Your task to perform on an android device: Search for Mexican restaurants on Maps Image 0: 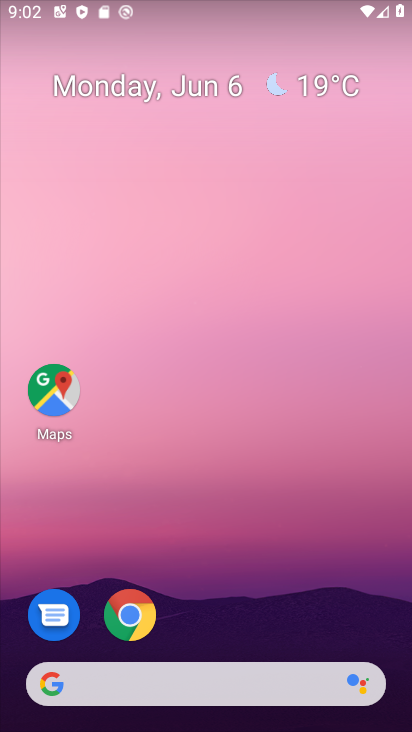
Step 0: click (48, 396)
Your task to perform on an android device: Search for Mexican restaurants on Maps Image 1: 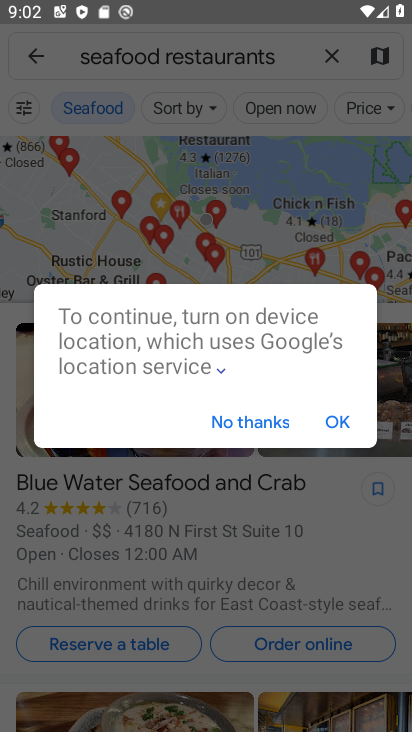
Step 1: click (337, 423)
Your task to perform on an android device: Search for Mexican restaurants on Maps Image 2: 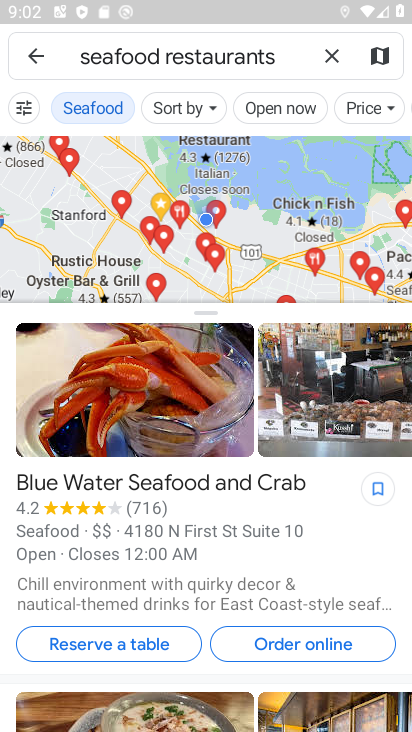
Step 2: click (323, 69)
Your task to perform on an android device: Search for Mexican restaurants on Maps Image 3: 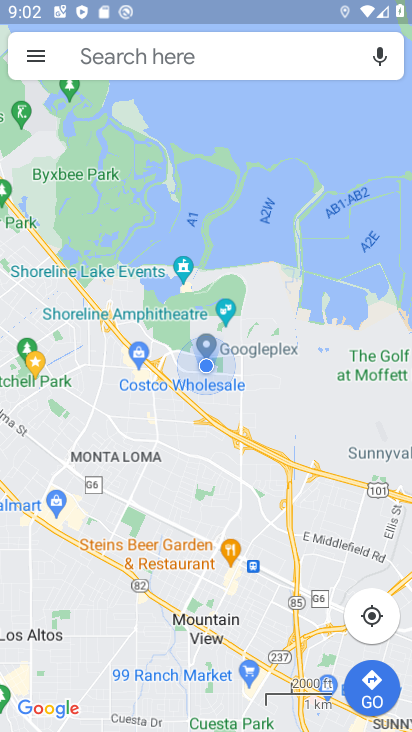
Step 3: click (248, 56)
Your task to perform on an android device: Search for Mexican restaurants on Maps Image 4: 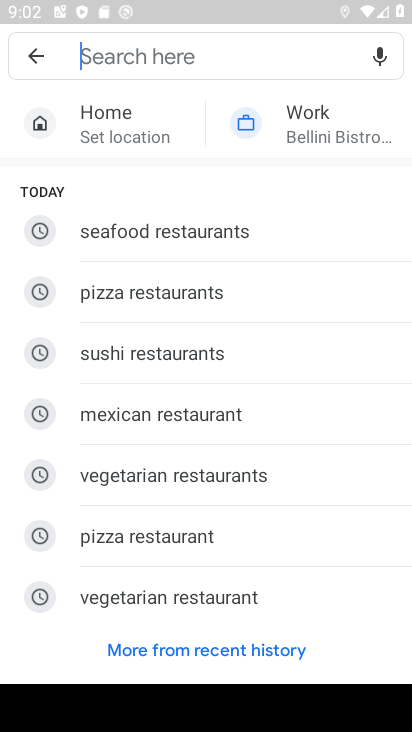
Step 4: click (184, 406)
Your task to perform on an android device: Search for Mexican restaurants on Maps Image 5: 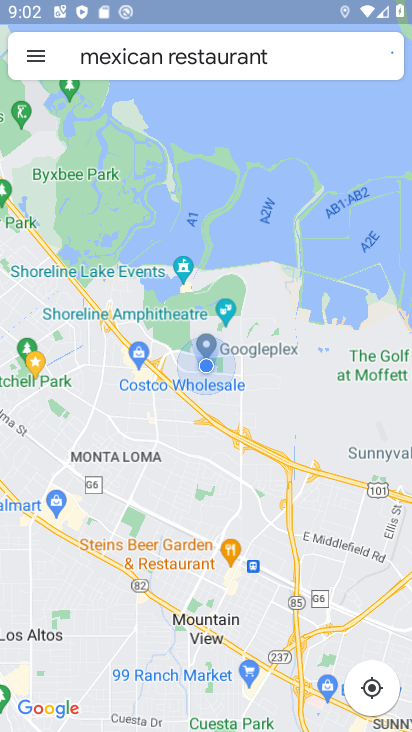
Step 5: task complete